Your task to perform on an android device: set the stopwatch Image 0: 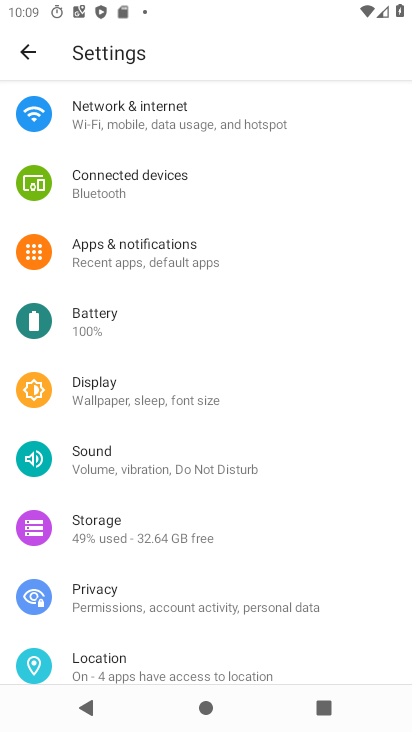
Step 0: press home button
Your task to perform on an android device: set the stopwatch Image 1: 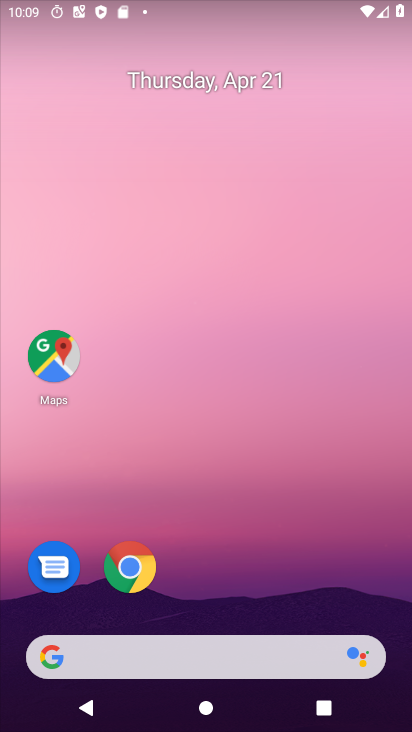
Step 1: drag from (243, 570) to (300, 45)
Your task to perform on an android device: set the stopwatch Image 2: 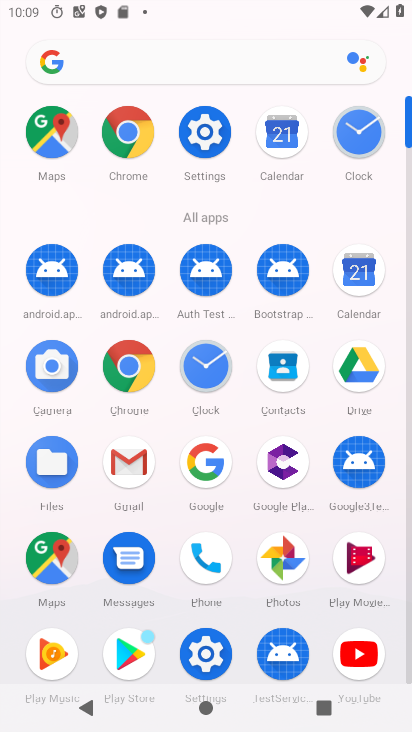
Step 2: click (199, 367)
Your task to perform on an android device: set the stopwatch Image 3: 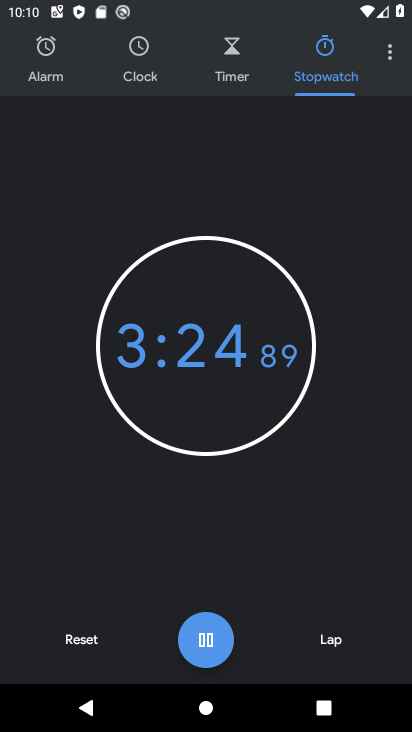
Step 3: click (79, 636)
Your task to perform on an android device: set the stopwatch Image 4: 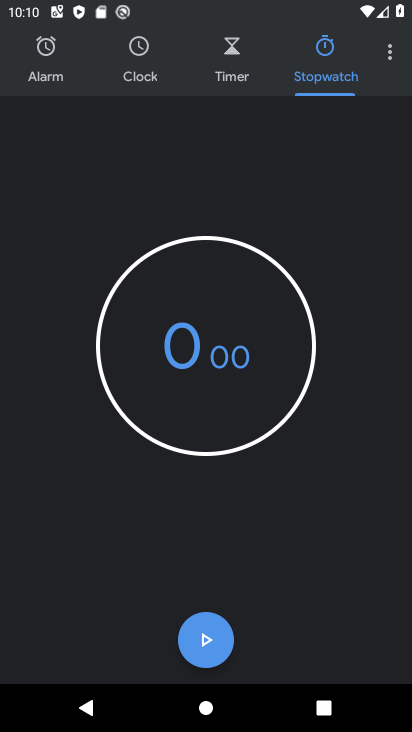
Step 4: click (205, 636)
Your task to perform on an android device: set the stopwatch Image 5: 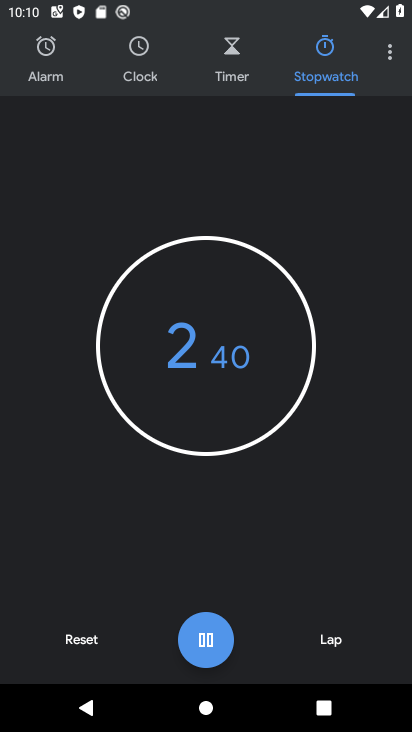
Step 5: task complete